Your task to perform on an android device: Open the Play Movies app and select the watchlist tab. Image 0: 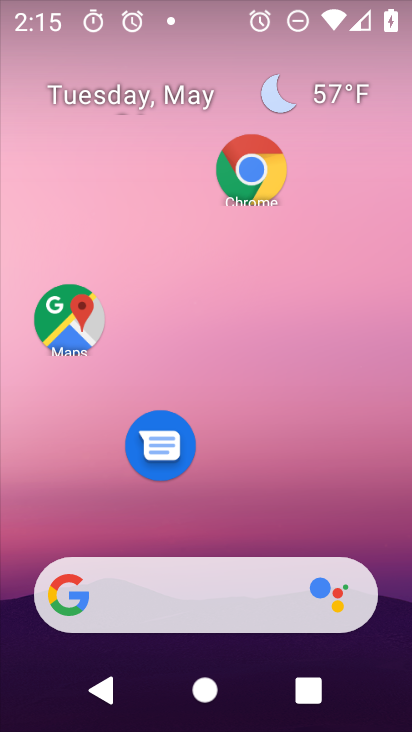
Step 0: drag from (227, 724) to (240, 116)
Your task to perform on an android device: Open the Play Movies app and select the watchlist tab. Image 1: 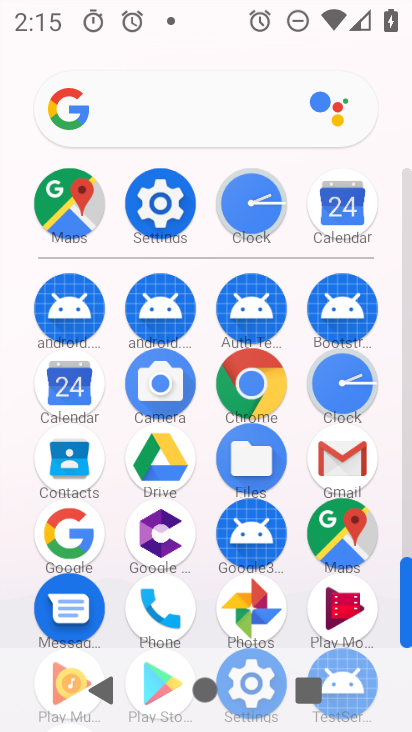
Step 1: click (336, 609)
Your task to perform on an android device: Open the Play Movies app and select the watchlist tab. Image 2: 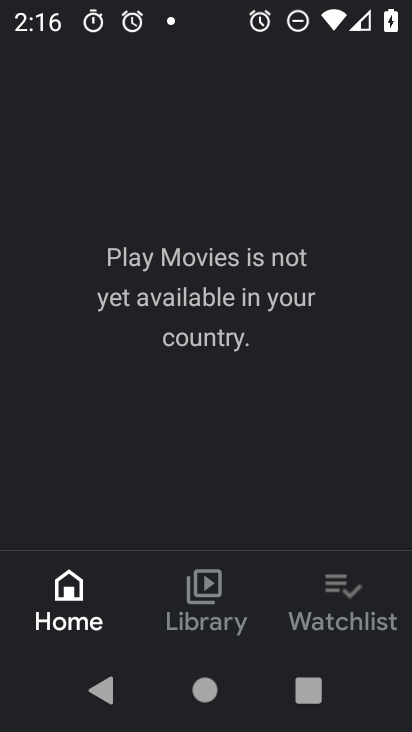
Step 2: click (338, 613)
Your task to perform on an android device: Open the Play Movies app and select the watchlist tab. Image 3: 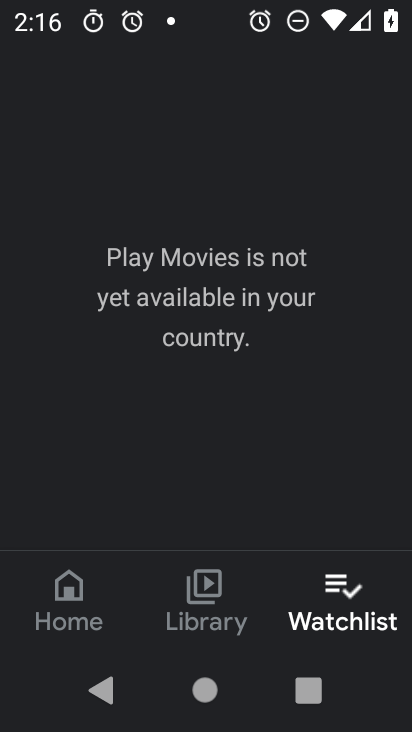
Step 3: task complete